Your task to perform on an android device: open chrome privacy settings Image 0: 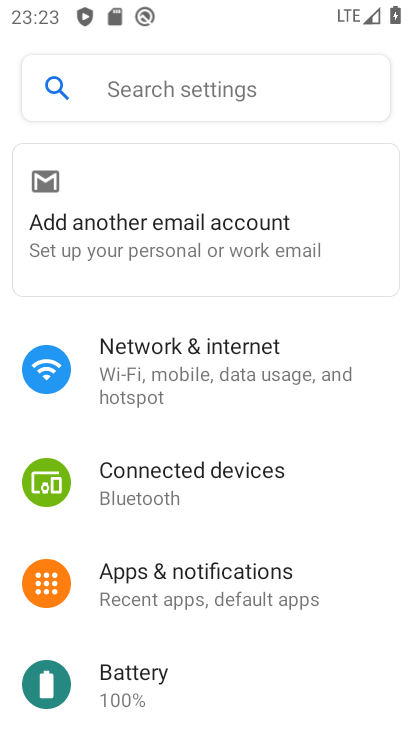
Step 0: press home button
Your task to perform on an android device: open chrome privacy settings Image 1: 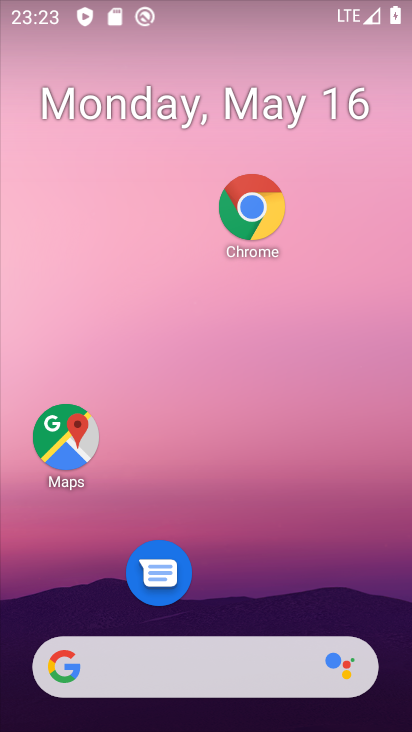
Step 1: drag from (303, 587) to (255, 88)
Your task to perform on an android device: open chrome privacy settings Image 2: 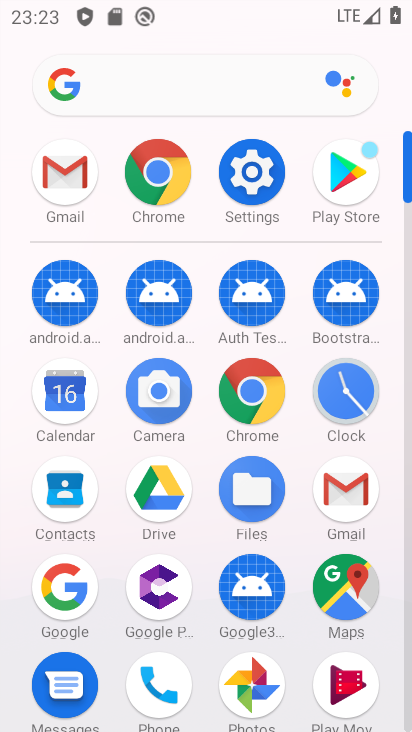
Step 2: click (259, 185)
Your task to perform on an android device: open chrome privacy settings Image 3: 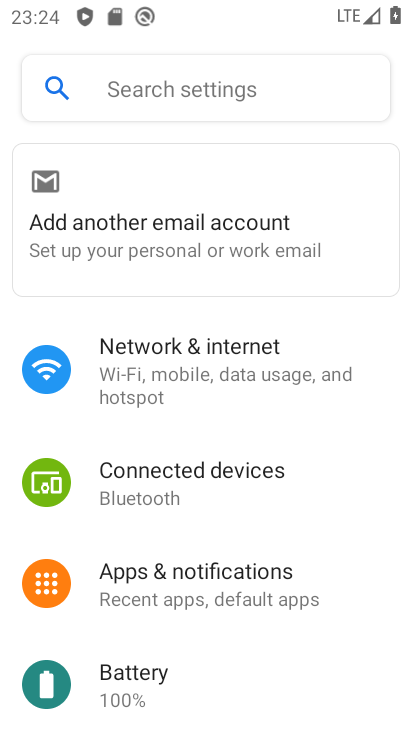
Step 3: drag from (274, 607) to (260, 370)
Your task to perform on an android device: open chrome privacy settings Image 4: 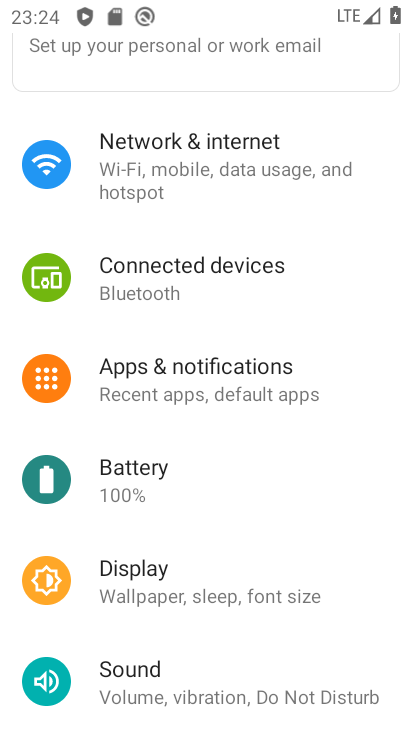
Step 4: press home button
Your task to perform on an android device: open chrome privacy settings Image 5: 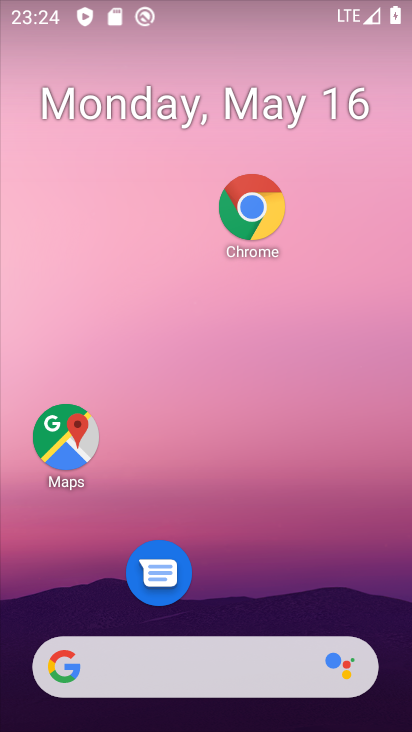
Step 5: drag from (86, 611) to (178, 0)
Your task to perform on an android device: open chrome privacy settings Image 6: 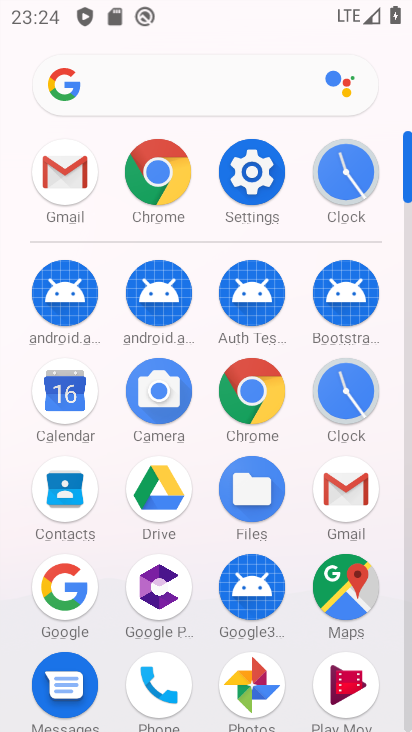
Step 6: click (251, 383)
Your task to perform on an android device: open chrome privacy settings Image 7: 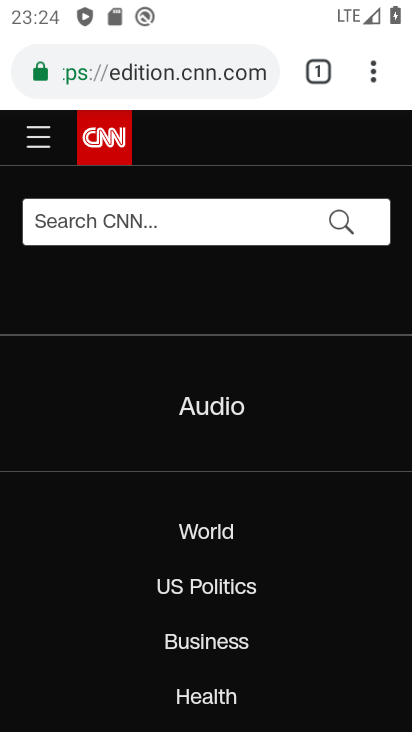
Step 7: click (383, 67)
Your task to perform on an android device: open chrome privacy settings Image 8: 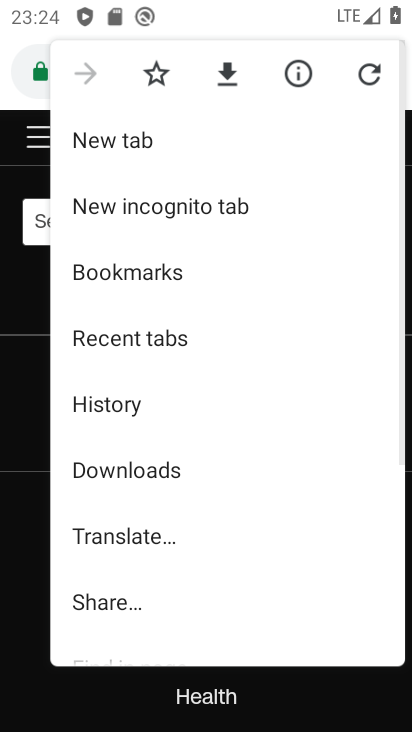
Step 8: drag from (203, 606) to (247, 88)
Your task to perform on an android device: open chrome privacy settings Image 9: 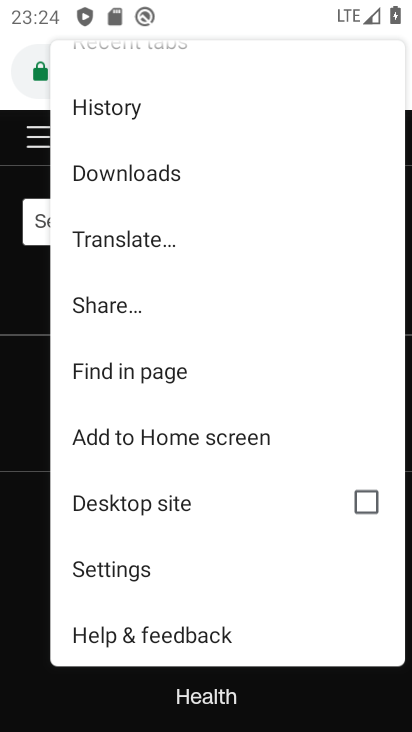
Step 9: click (174, 566)
Your task to perform on an android device: open chrome privacy settings Image 10: 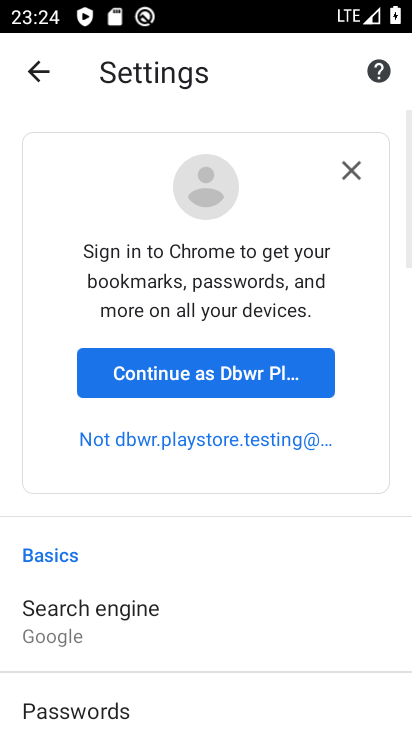
Step 10: drag from (199, 690) to (219, 123)
Your task to perform on an android device: open chrome privacy settings Image 11: 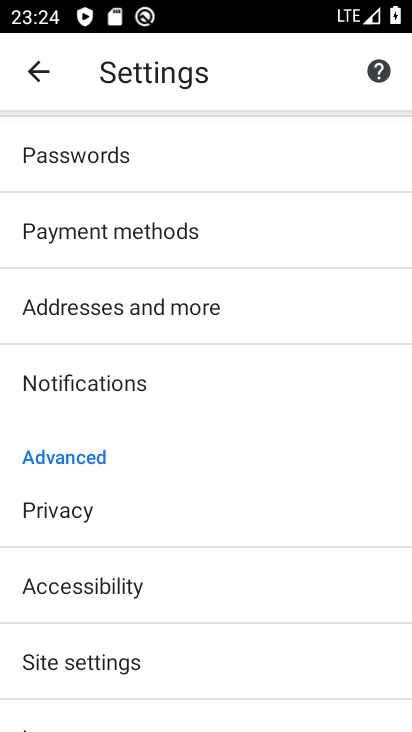
Step 11: drag from (145, 673) to (192, 340)
Your task to perform on an android device: open chrome privacy settings Image 12: 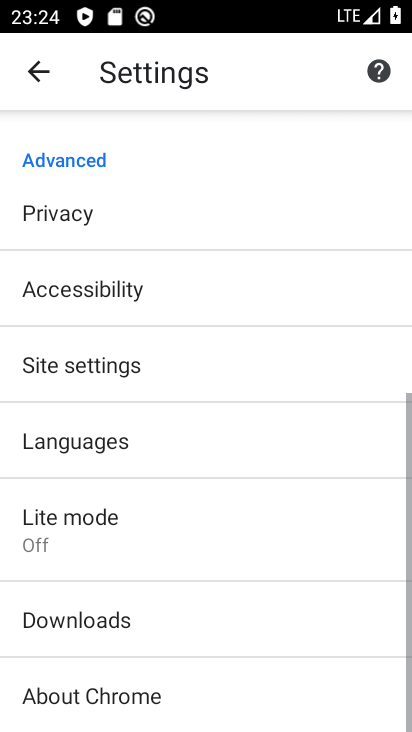
Step 12: drag from (119, 668) to (150, 276)
Your task to perform on an android device: open chrome privacy settings Image 13: 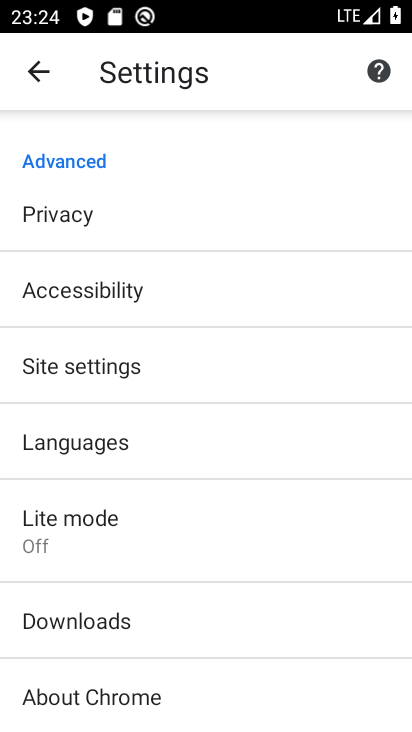
Step 13: click (125, 220)
Your task to perform on an android device: open chrome privacy settings Image 14: 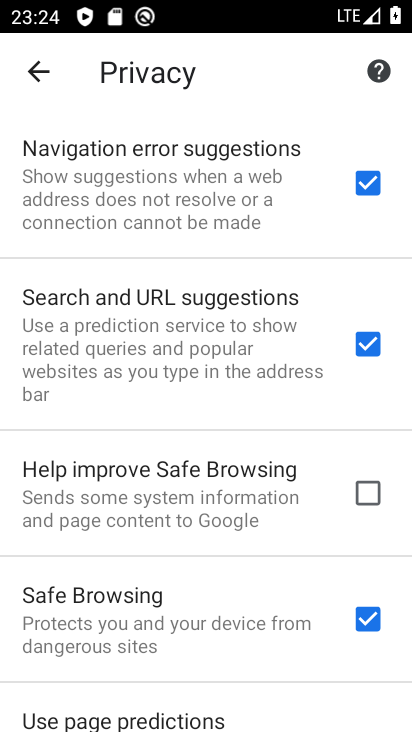
Step 14: task complete